Your task to perform on an android device: Open wifi settings Image 0: 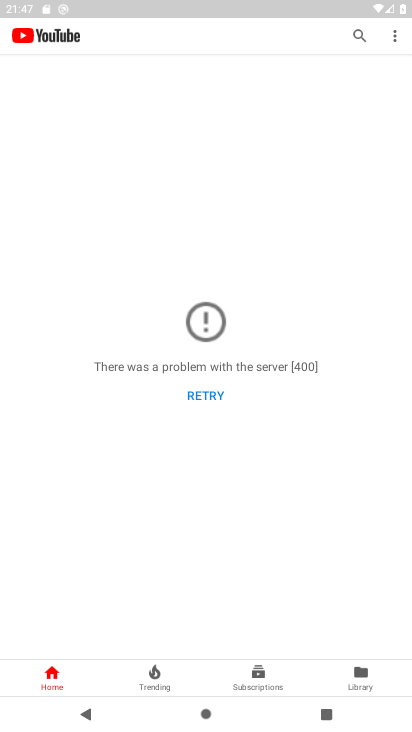
Step 0: press home button
Your task to perform on an android device: Open wifi settings Image 1: 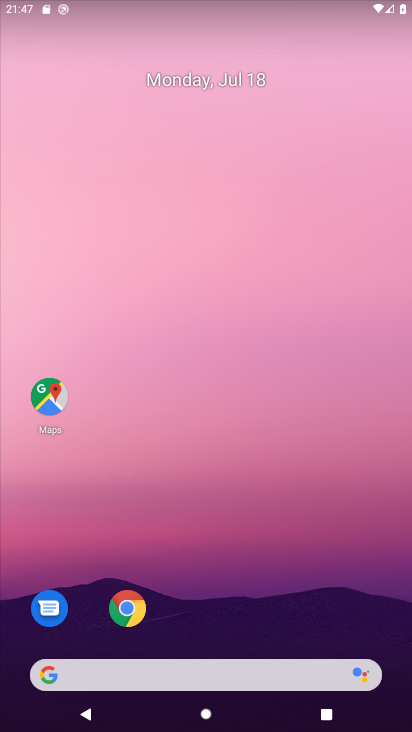
Step 1: drag from (260, 653) to (285, 187)
Your task to perform on an android device: Open wifi settings Image 2: 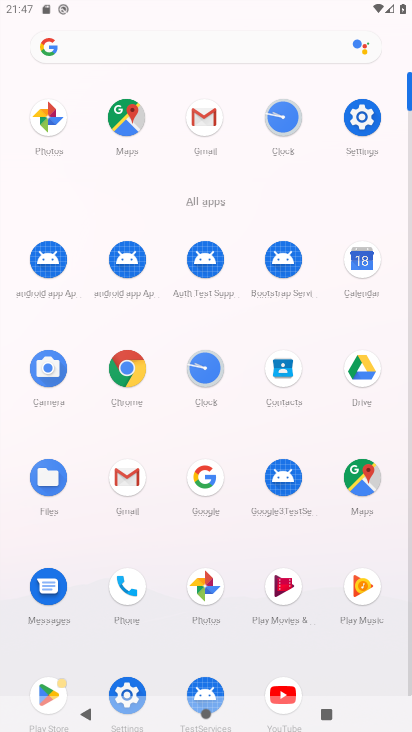
Step 2: click (127, 682)
Your task to perform on an android device: Open wifi settings Image 3: 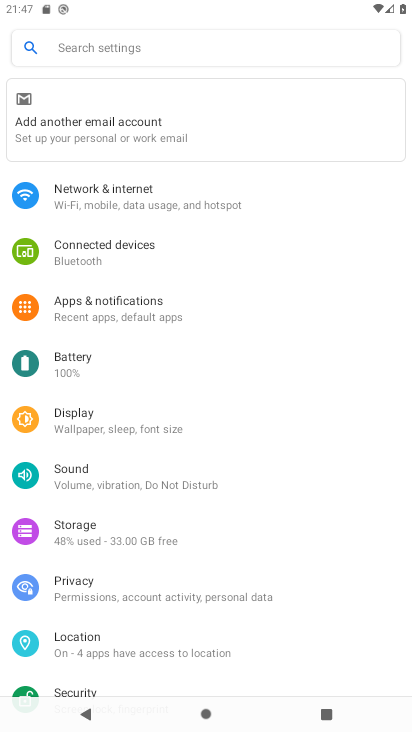
Step 3: click (208, 203)
Your task to perform on an android device: Open wifi settings Image 4: 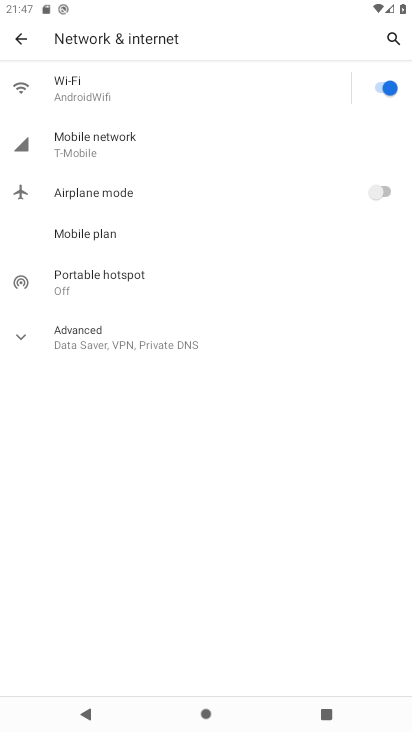
Step 4: click (119, 97)
Your task to perform on an android device: Open wifi settings Image 5: 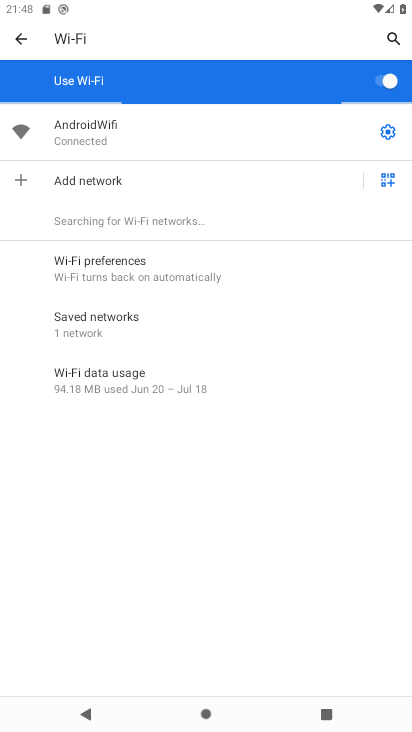
Step 5: task complete